Your task to perform on an android device: Open network settings Image 0: 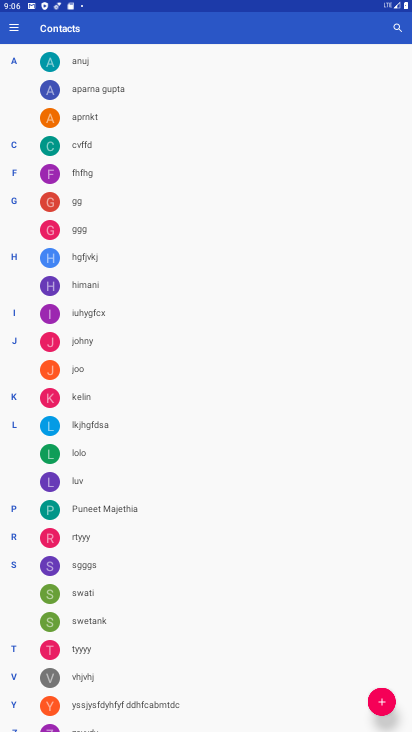
Step 0: drag from (183, 616) to (290, 251)
Your task to perform on an android device: Open network settings Image 1: 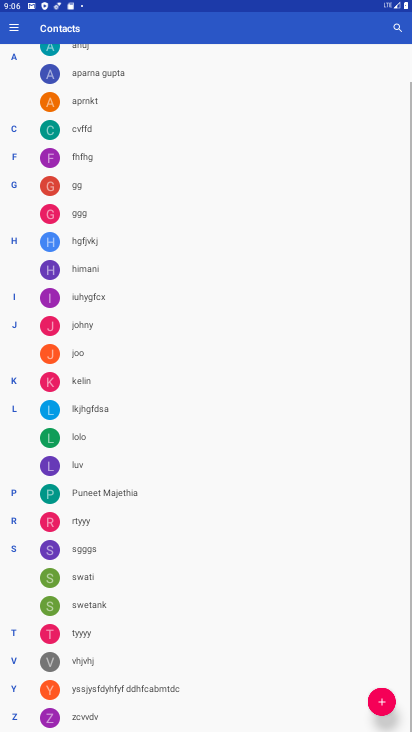
Step 1: press home button
Your task to perform on an android device: Open network settings Image 2: 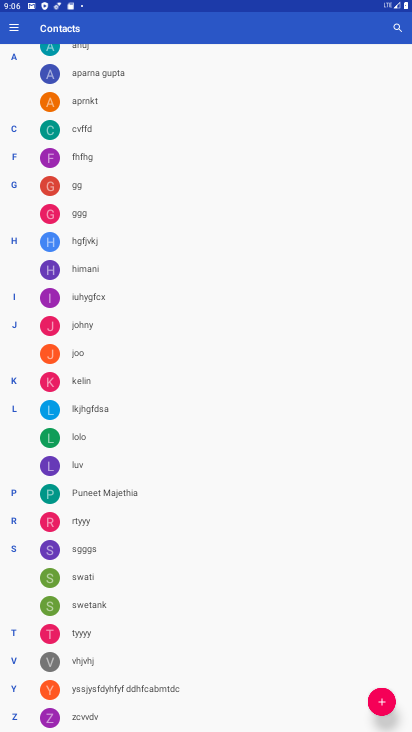
Step 2: press home button
Your task to perform on an android device: Open network settings Image 3: 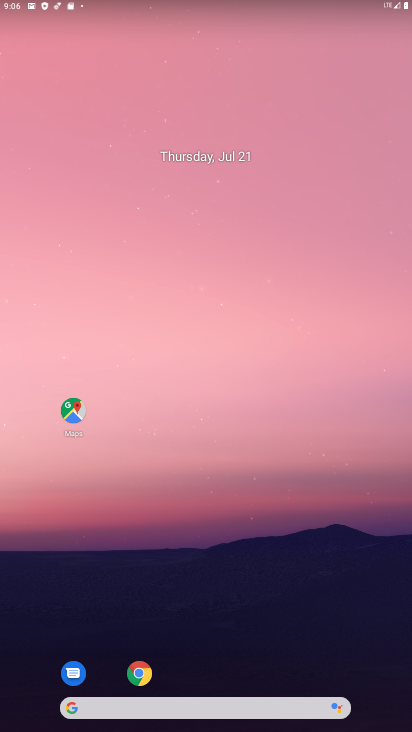
Step 3: drag from (167, 684) to (271, 178)
Your task to perform on an android device: Open network settings Image 4: 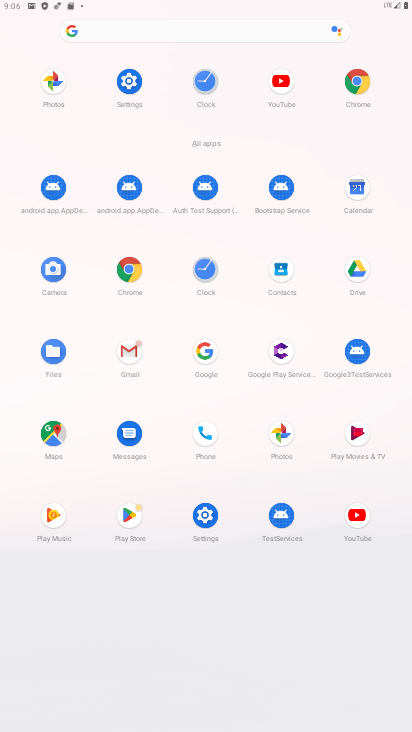
Step 4: click (201, 520)
Your task to perform on an android device: Open network settings Image 5: 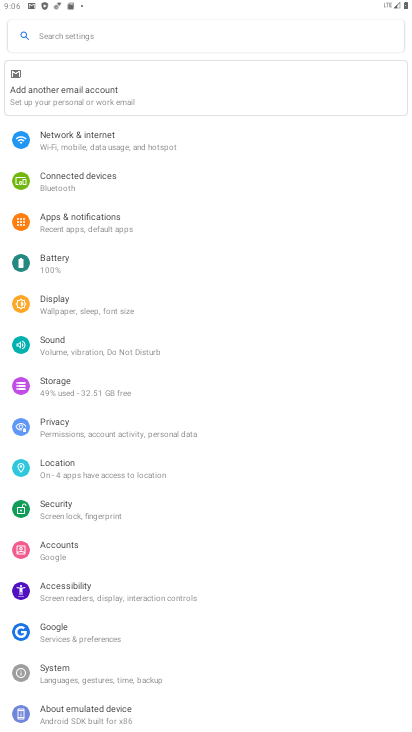
Step 5: click (110, 139)
Your task to perform on an android device: Open network settings Image 6: 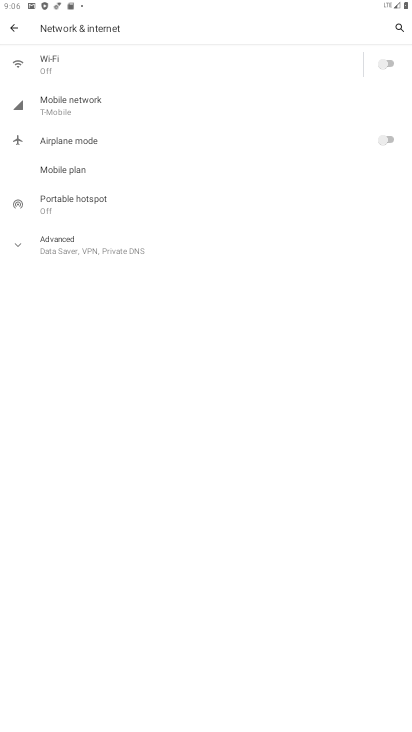
Step 6: task complete